Your task to perform on an android device: change the clock display to digital Image 0: 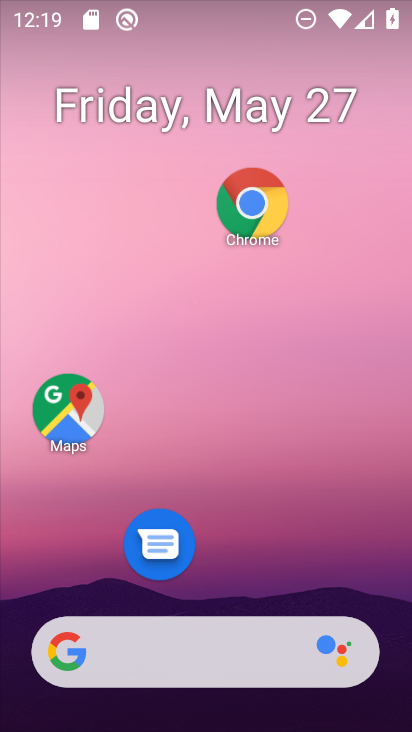
Step 0: click (256, 266)
Your task to perform on an android device: change the clock display to digital Image 1: 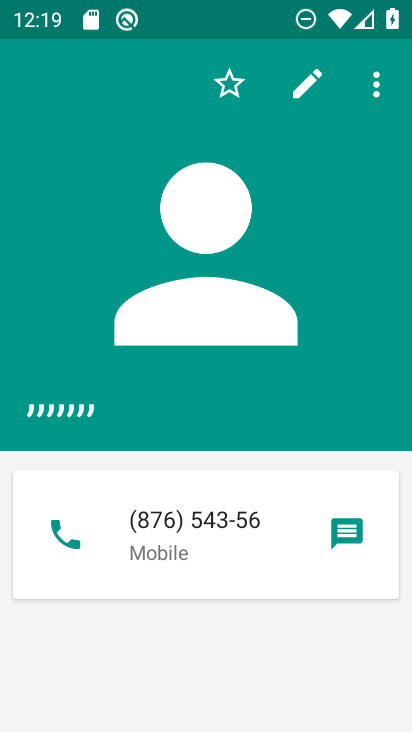
Step 1: drag from (254, 663) to (282, 306)
Your task to perform on an android device: change the clock display to digital Image 2: 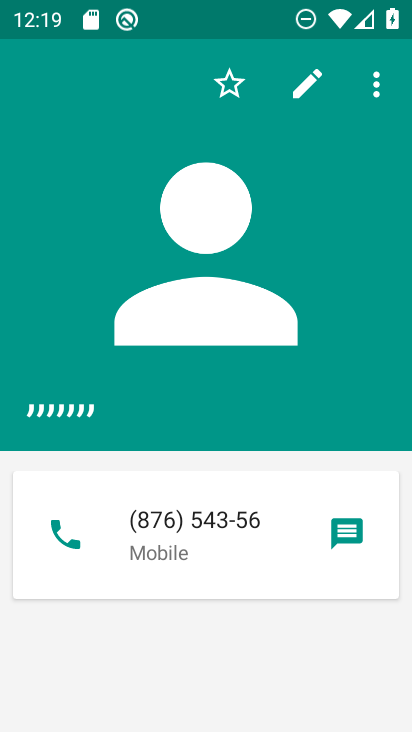
Step 2: drag from (261, 657) to (316, 311)
Your task to perform on an android device: change the clock display to digital Image 3: 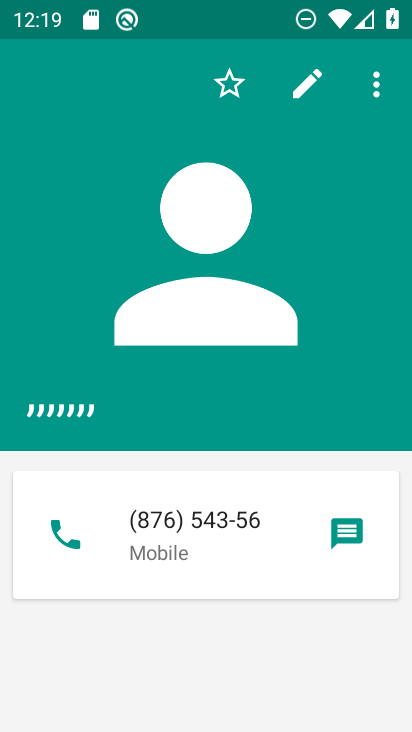
Step 3: drag from (241, 675) to (261, 329)
Your task to perform on an android device: change the clock display to digital Image 4: 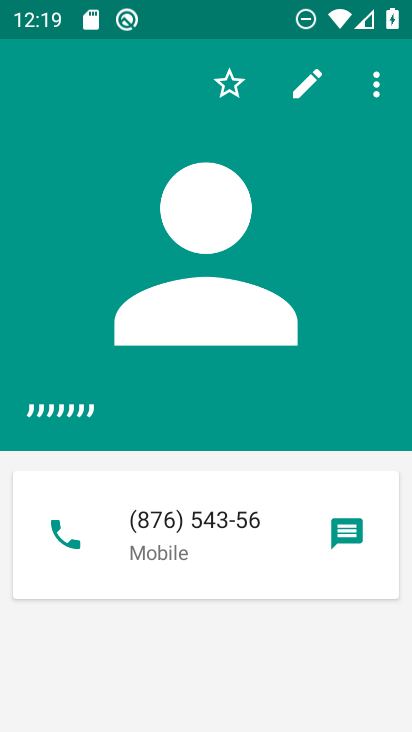
Step 4: drag from (232, 664) to (260, 330)
Your task to perform on an android device: change the clock display to digital Image 5: 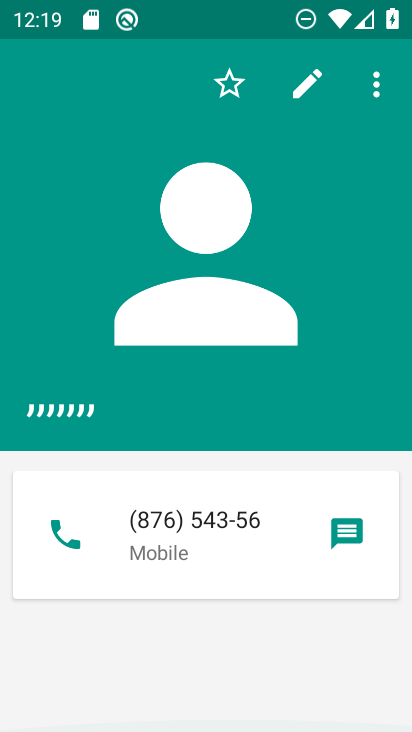
Step 5: drag from (230, 197) to (216, 667)
Your task to perform on an android device: change the clock display to digital Image 6: 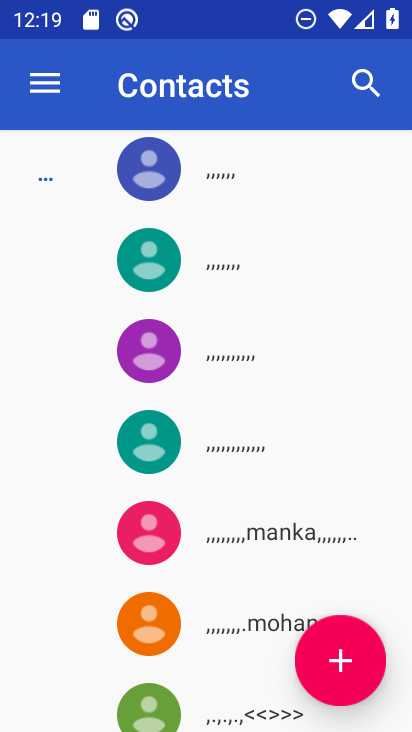
Step 6: drag from (240, 564) to (298, 217)
Your task to perform on an android device: change the clock display to digital Image 7: 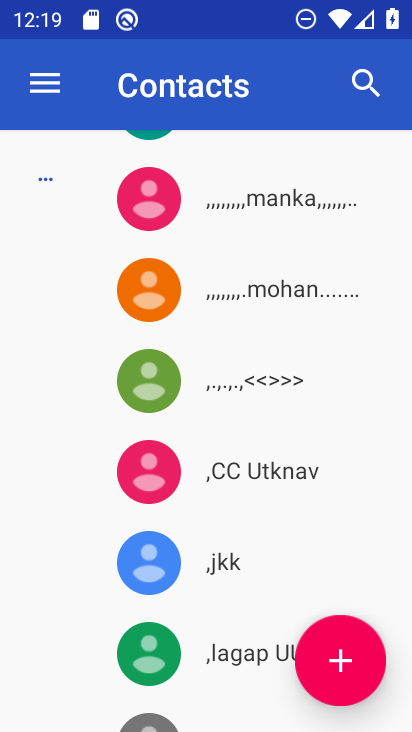
Step 7: drag from (246, 335) to (299, 707)
Your task to perform on an android device: change the clock display to digital Image 8: 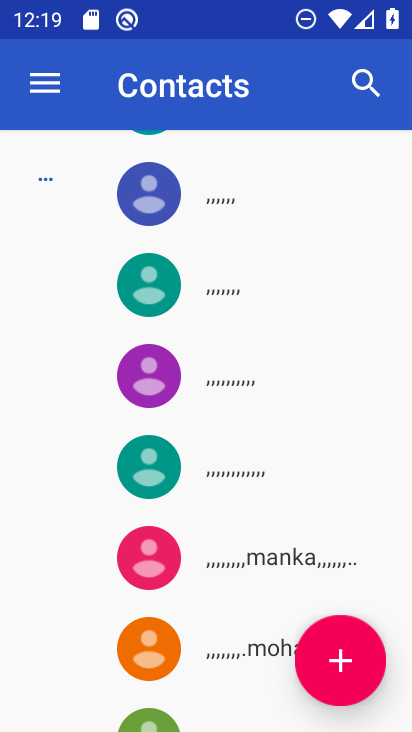
Step 8: press home button
Your task to perform on an android device: change the clock display to digital Image 9: 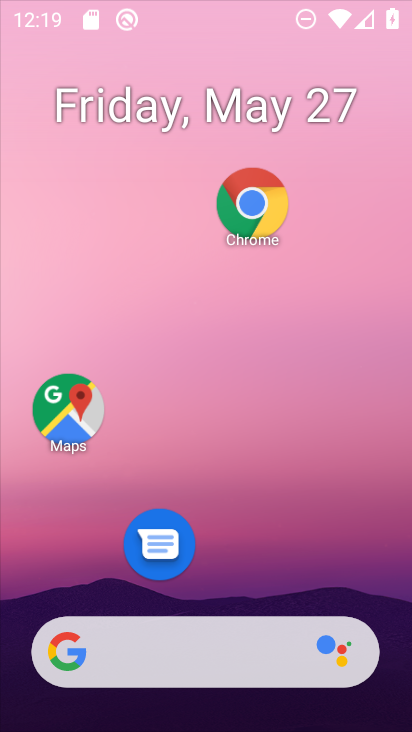
Step 9: drag from (221, 608) to (220, 227)
Your task to perform on an android device: change the clock display to digital Image 10: 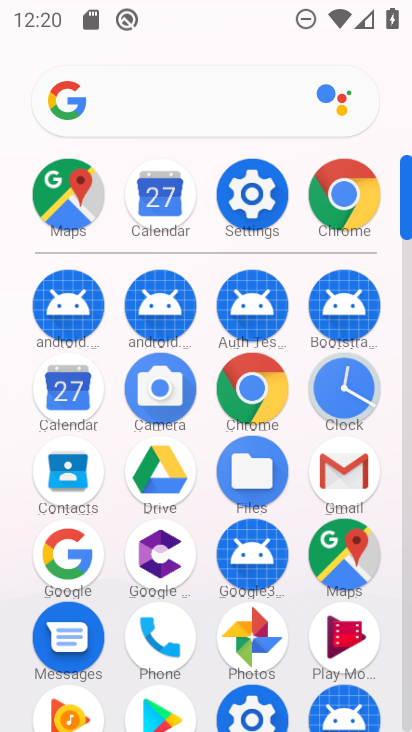
Step 10: click (340, 382)
Your task to perform on an android device: change the clock display to digital Image 11: 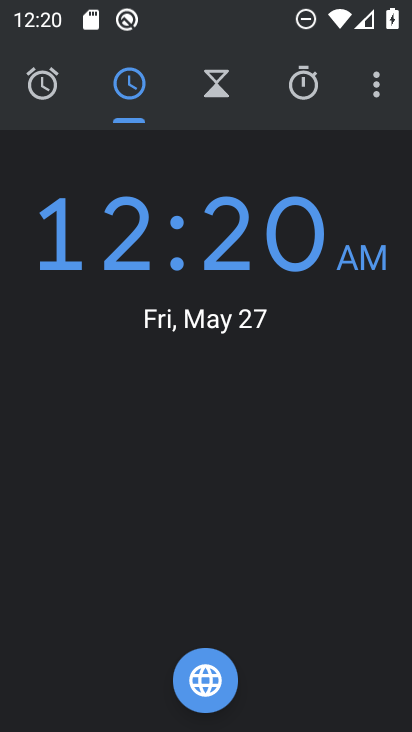
Step 11: click (380, 68)
Your task to perform on an android device: change the clock display to digital Image 12: 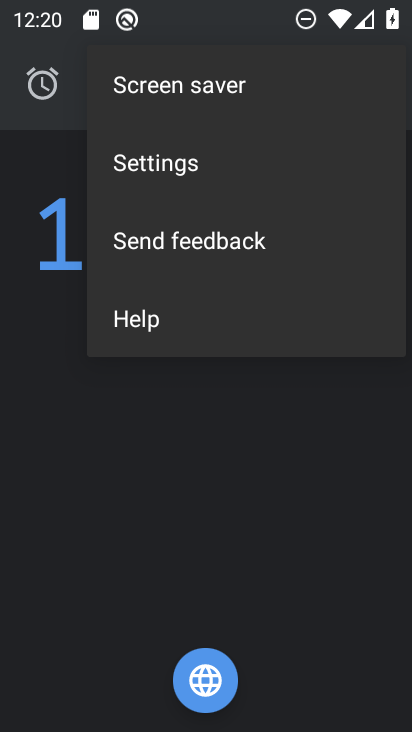
Step 12: click (245, 161)
Your task to perform on an android device: change the clock display to digital Image 13: 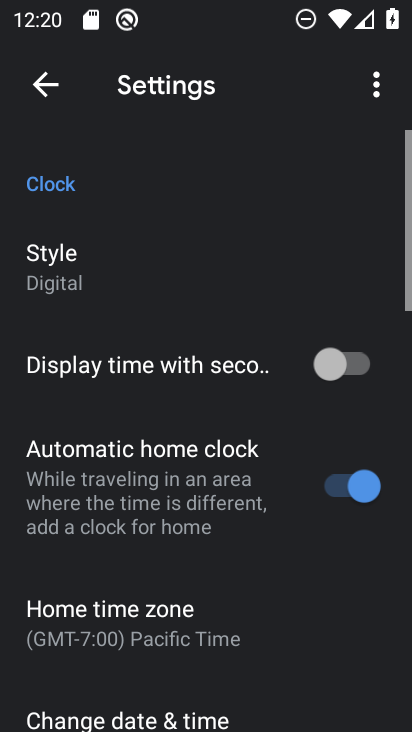
Step 13: click (101, 257)
Your task to perform on an android device: change the clock display to digital Image 14: 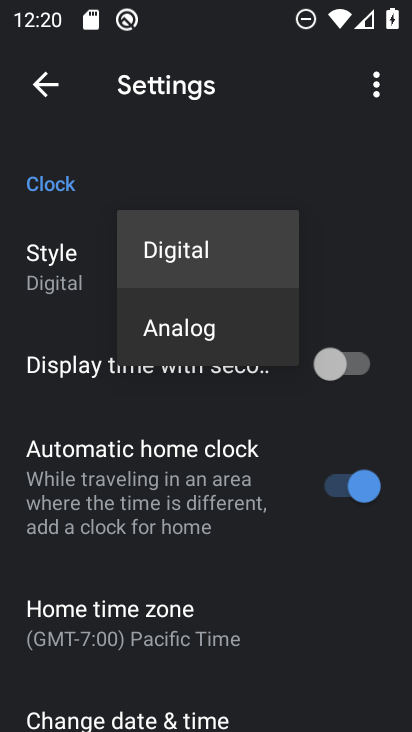
Step 14: click (173, 234)
Your task to perform on an android device: change the clock display to digital Image 15: 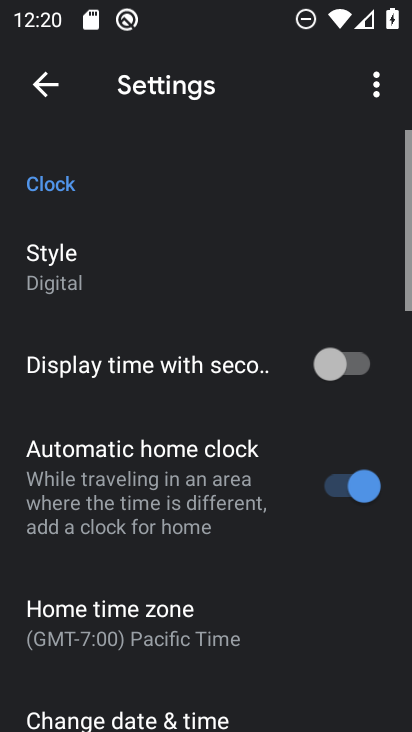
Step 15: task complete